Your task to perform on an android device: toggle data saver in the chrome app Image 0: 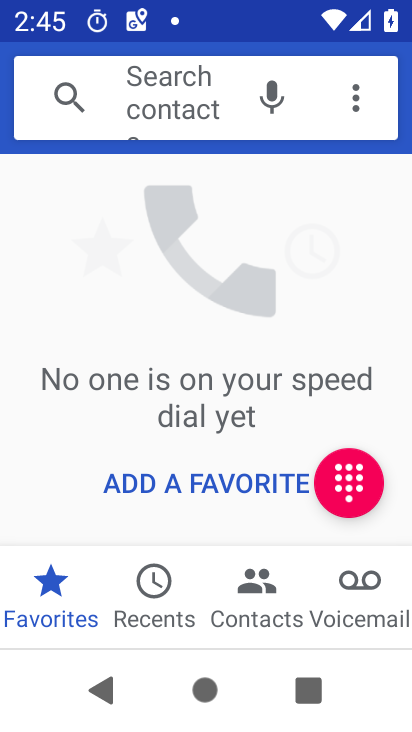
Step 0: press home button
Your task to perform on an android device: toggle data saver in the chrome app Image 1: 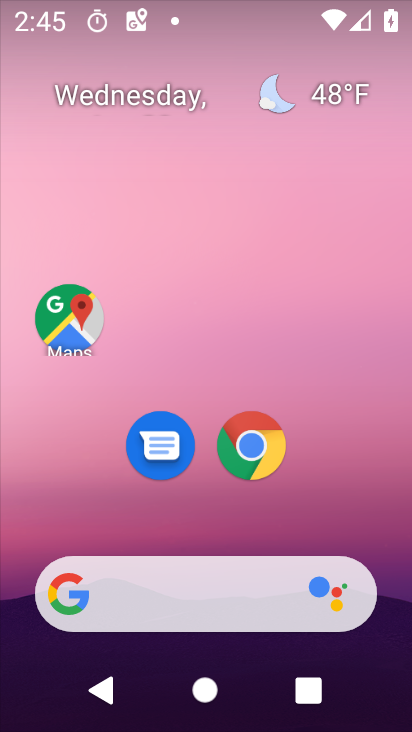
Step 1: click (254, 451)
Your task to perform on an android device: toggle data saver in the chrome app Image 2: 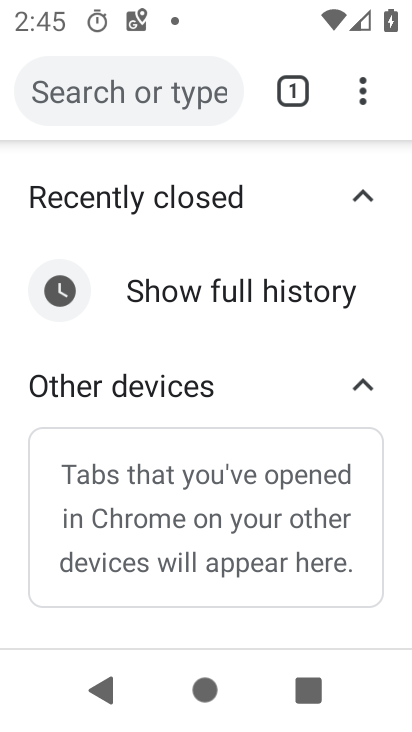
Step 2: click (364, 98)
Your task to perform on an android device: toggle data saver in the chrome app Image 3: 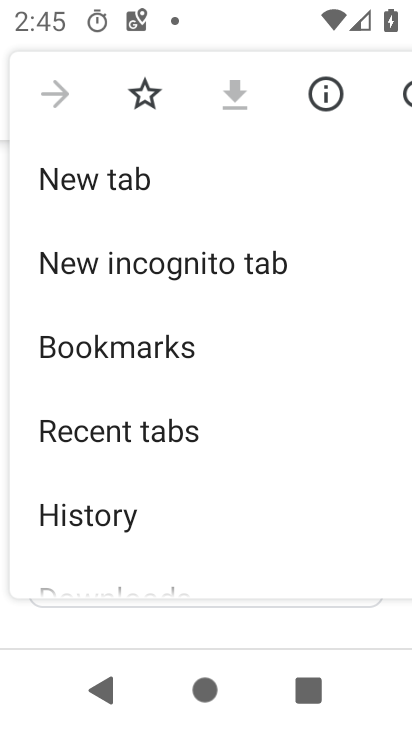
Step 3: drag from (361, 448) to (358, 81)
Your task to perform on an android device: toggle data saver in the chrome app Image 4: 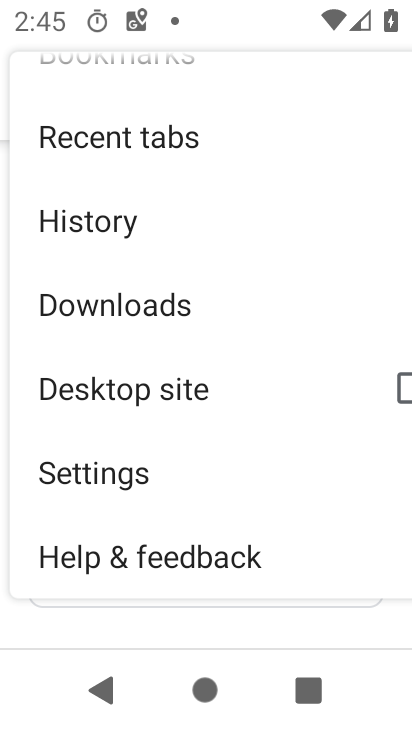
Step 4: click (98, 474)
Your task to perform on an android device: toggle data saver in the chrome app Image 5: 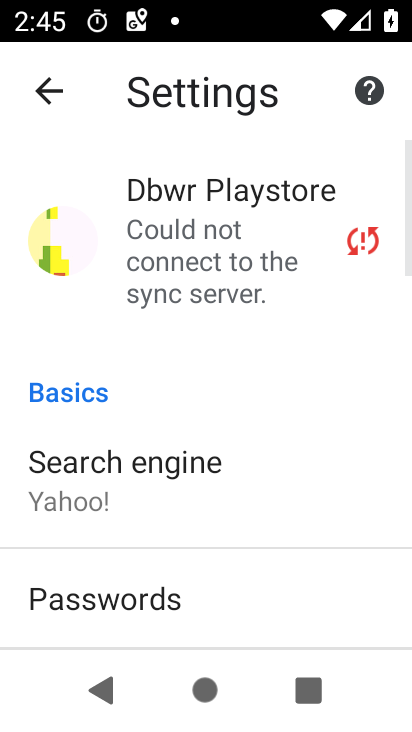
Step 5: drag from (317, 521) to (301, 143)
Your task to perform on an android device: toggle data saver in the chrome app Image 6: 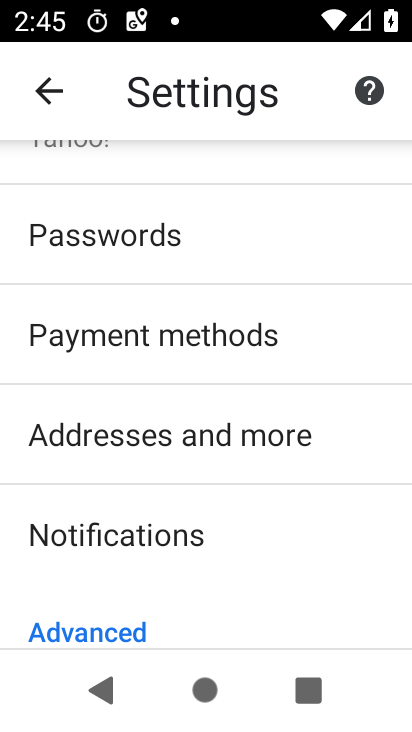
Step 6: drag from (221, 486) to (214, 173)
Your task to perform on an android device: toggle data saver in the chrome app Image 7: 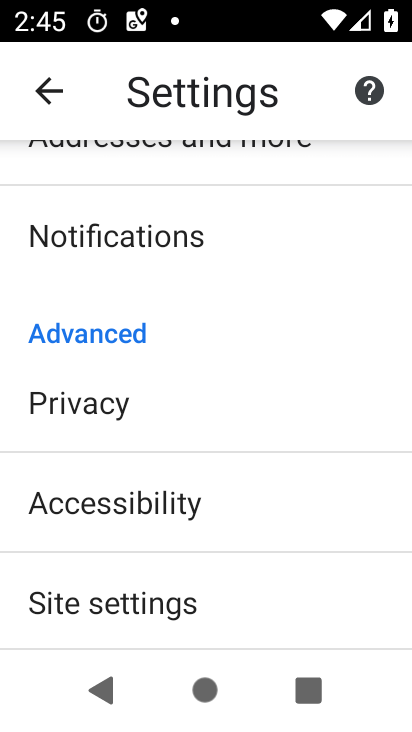
Step 7: drag from (280, 531) to (291, 168)
Your task to perform on an android device: toggle data saver in the chrome app Image 8: 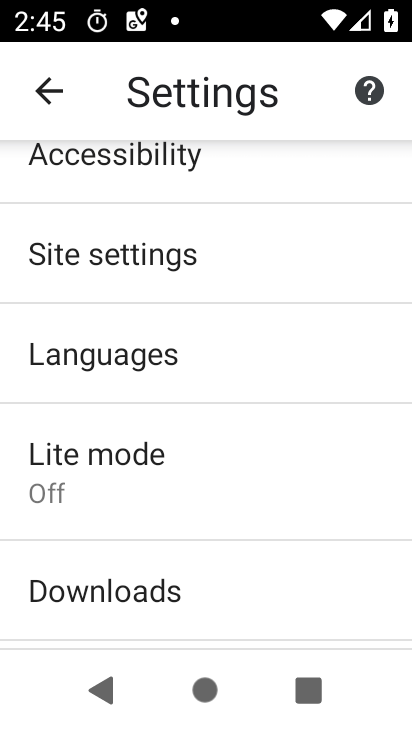
Step 8: click (111, 454)
Your task to perform on an android device: toggle data saver in the chrome app Image 9: 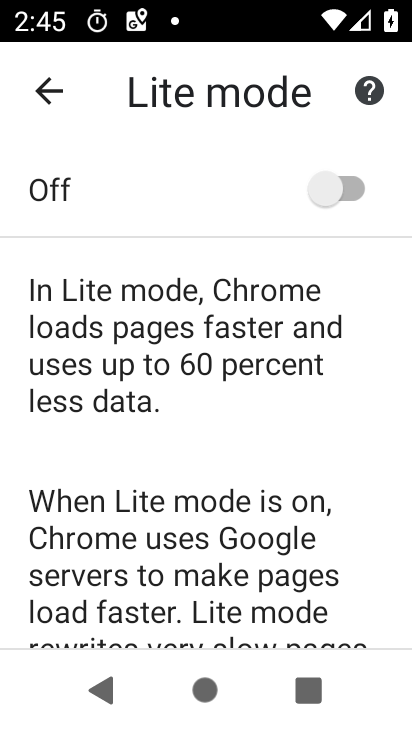
Step 9: click (326, 185)
Your task to perform on an android device: toggle data saver in the chrome app Image 10: 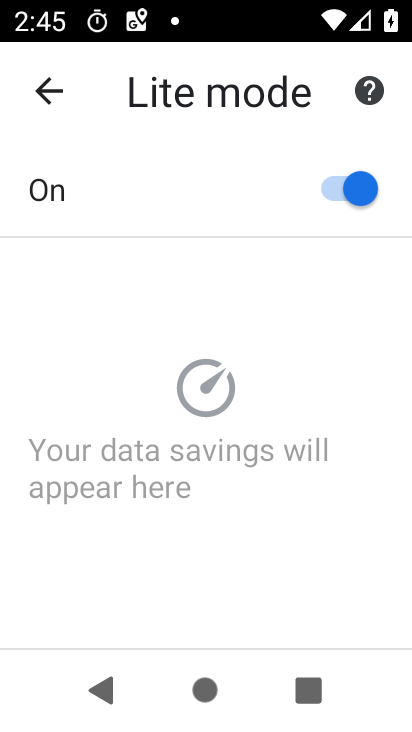
Step 10: task complete